Your task to perform on an android device: turn on location history Image 0: 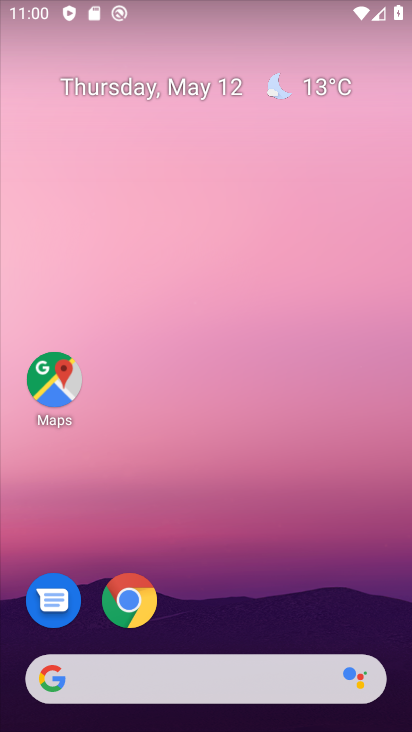
Step 0: click (55, 375)
Your task to perform on an android device: turn on location history Image 1: 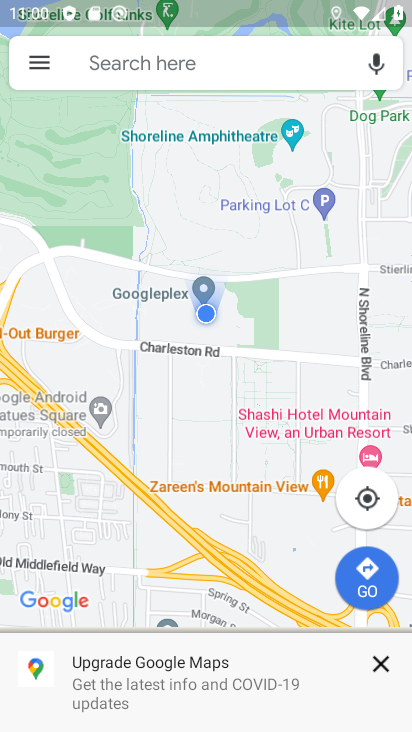
Step 1: click (41, 62)
Your task to perform on an android device: turn on location history Image 2: 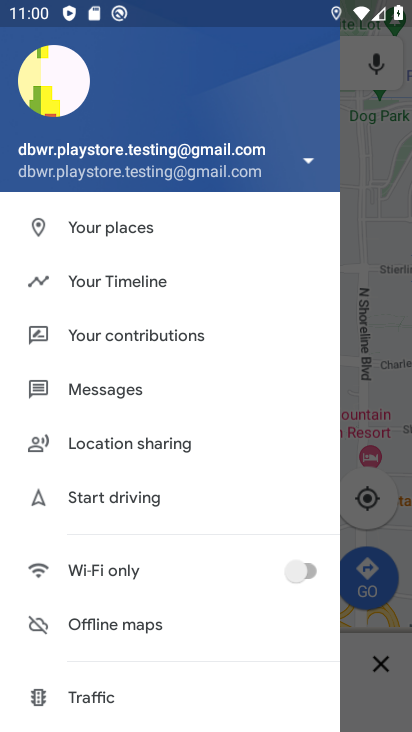
Step 2: drag from (171, 595) to (212, 275)
Your task to perform on an android device: turn on location history Image 3: 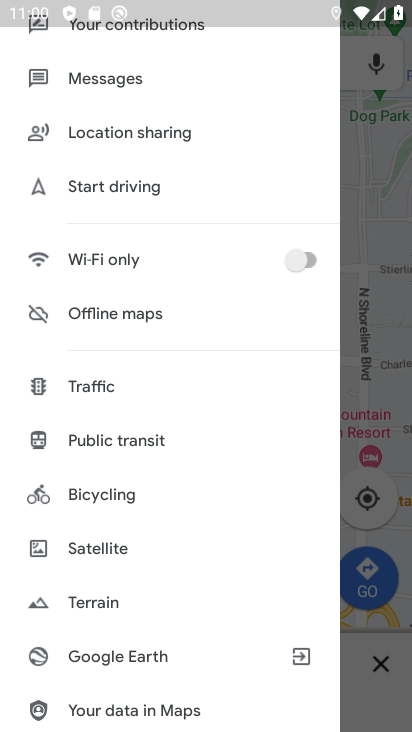
Step 3: drag from (206, 554) to (227, 257)
Your task to perform on an android device: turn on location history Image 4: 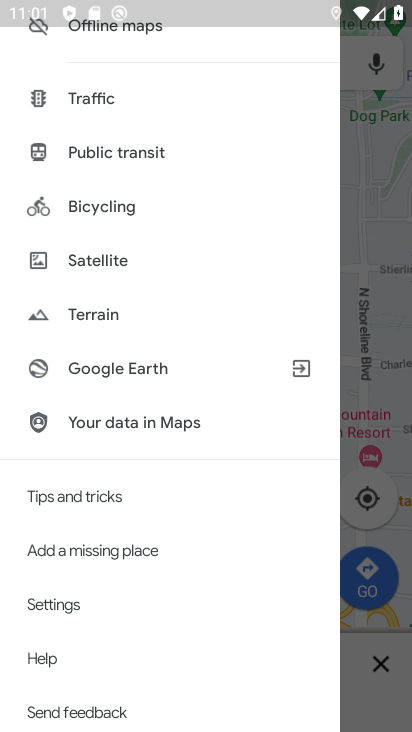
Step 4: click (78, 600)
Your task to perform on an android device: turn on location history Image 5: 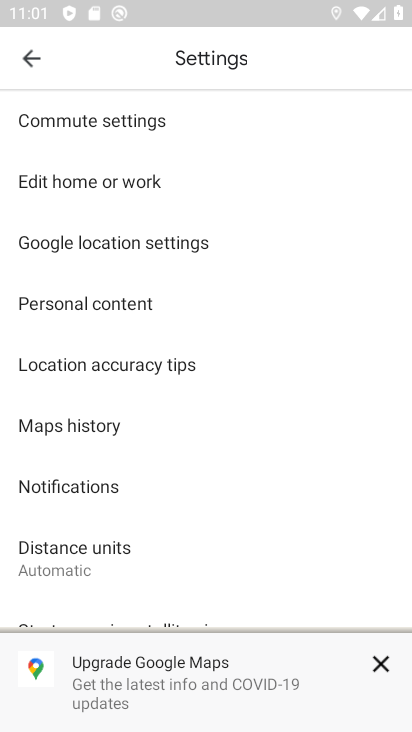
Step 5: click (86, 305)
Your task to perform on an android device: turn on location history Image 6: 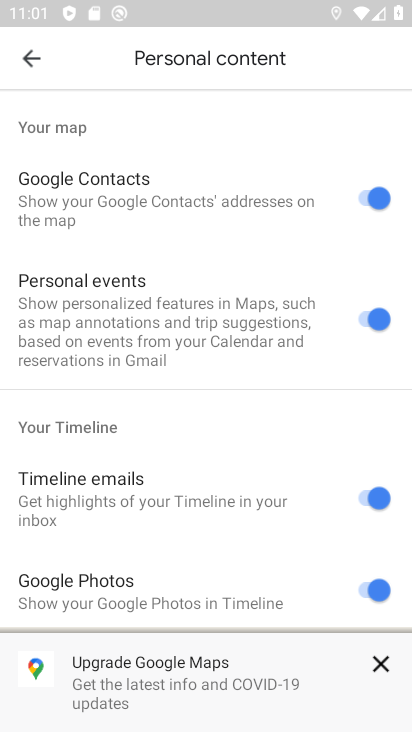
Step 6: drag from (266, 609) to (262, 194)
Your task to perform on an android device: turn on location history Image 7: 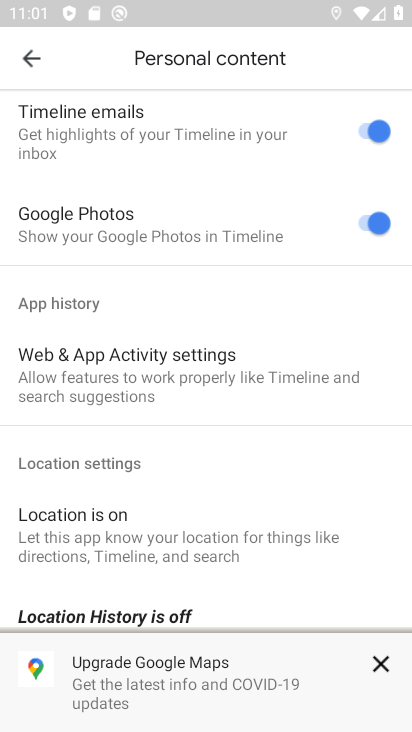
Step 7: drag from (244, 543) to (225, 239)
Your task to perform on an android device: turn on location history Image 8: 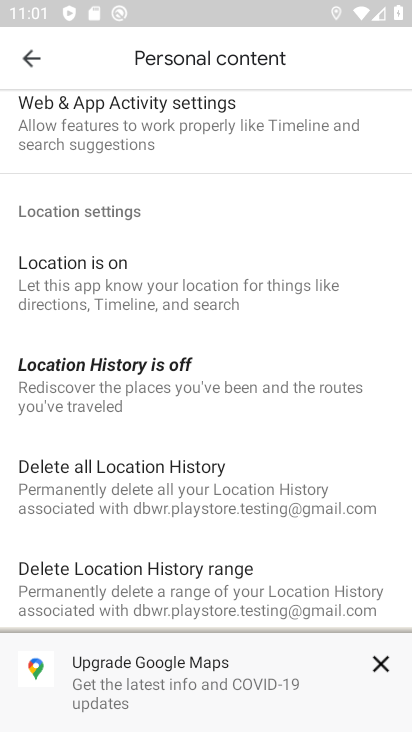
Step 8: click (138, 373)
Your task to perform on an android device: turn on location history Image 9: 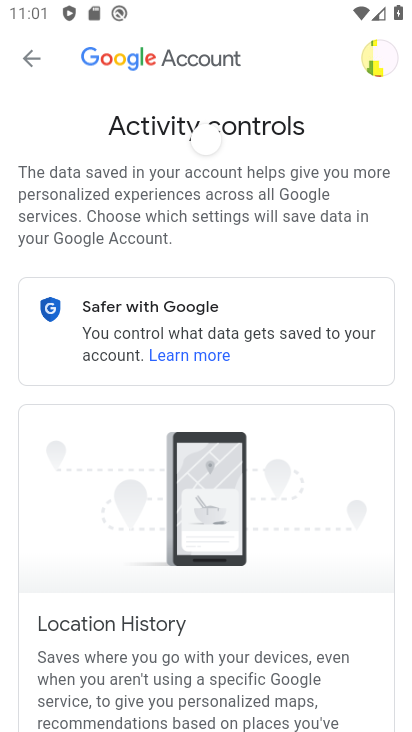
Step 9: drag from (291, 583) to (290, 140)
Your task to perform on an android device: turn on location history Image 10: 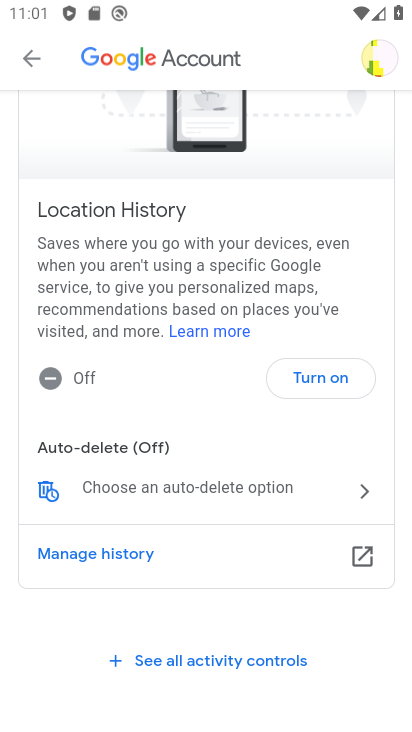
Step 10: click (323, 372)
Your task to perform on an android device: turn on location history Image 11: 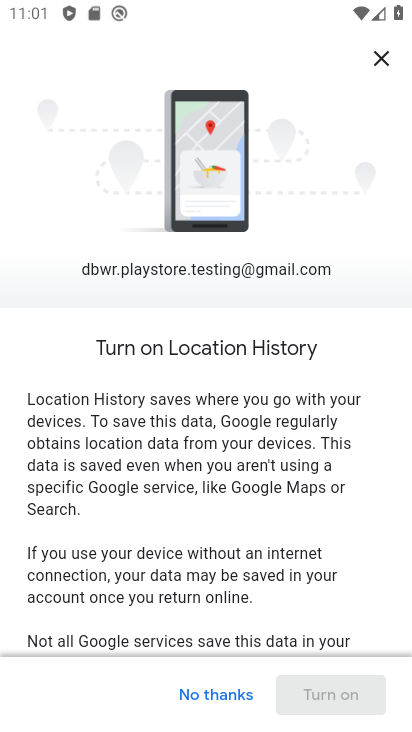
Step 11: drag from (320, 576) to (302, 129)
Your task to perform on an android device: turn on location history Image 12: 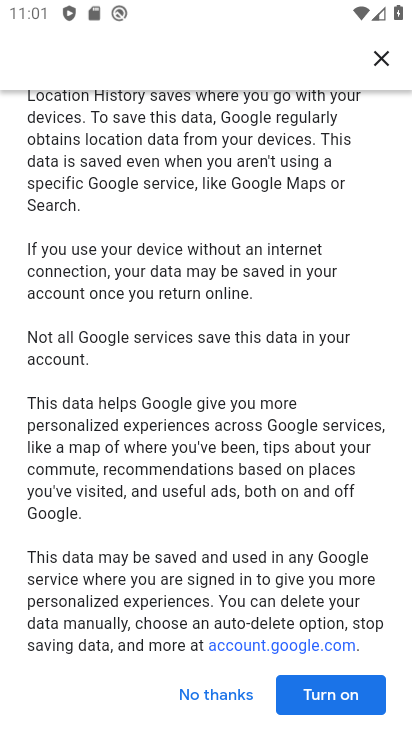
Step 12: click (342, 698)
Your task to perform on an android device: turn on location history Image 13: 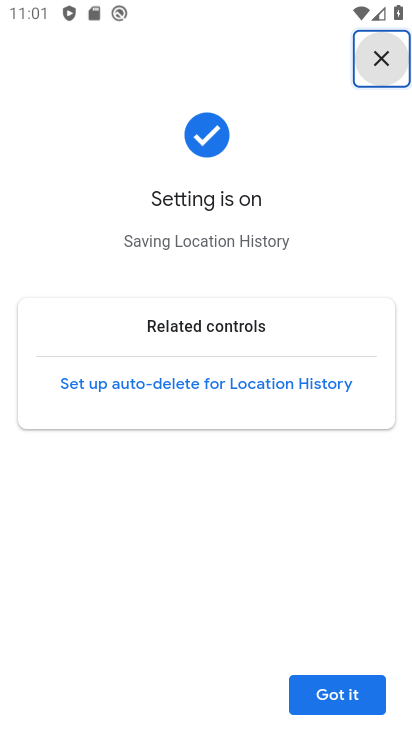
Step 13: click (342, 698)
Your task to perform on an android device: turn on location history Image 14: 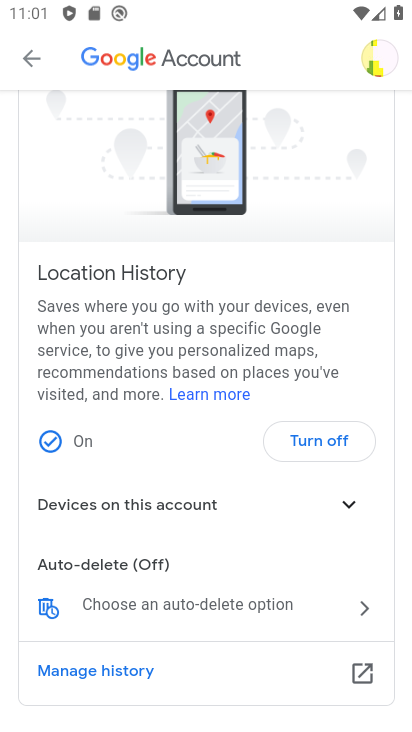
Step 14: task complete